Your task to perform on an android device: turn on location history Image 0: 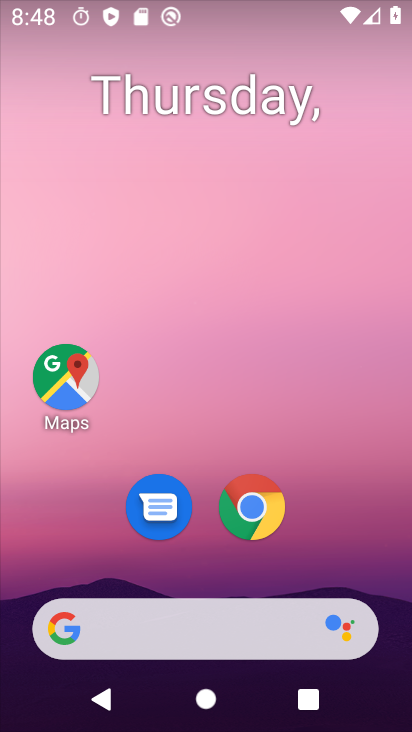
Step 0: drag from (218, 579) to (331, 18)
Your task to perform on an android device: turn on location history Image 1: 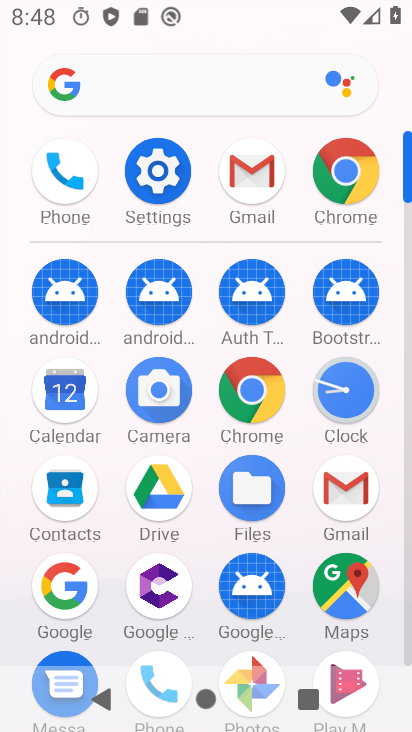
Step 1: click (180, 188)
Your task to perform on an android device: turn on location history Image 2: 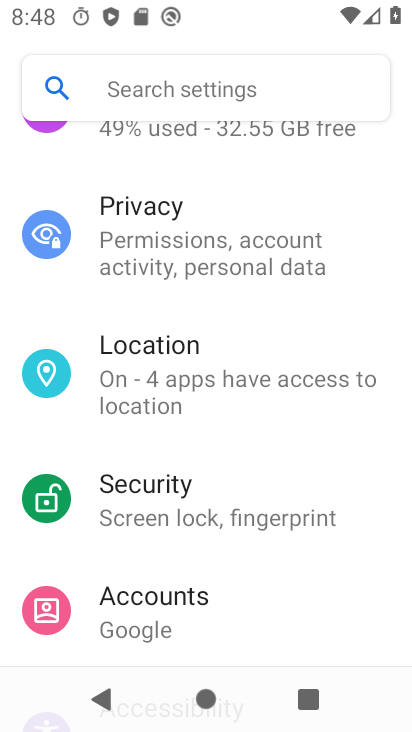
Step 2: click (183, 386)
Your task to perform on an android device: turn on location history Image 3: 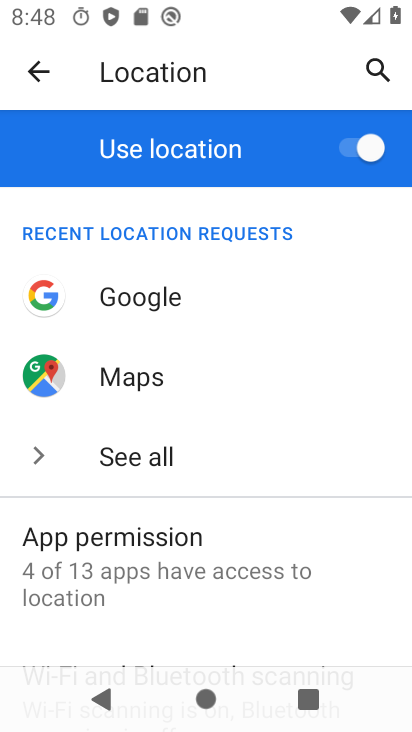
Step 3: drag from (160, 490) to (217, 98)
Your task to perform on an android device: turn on location history Image 4: 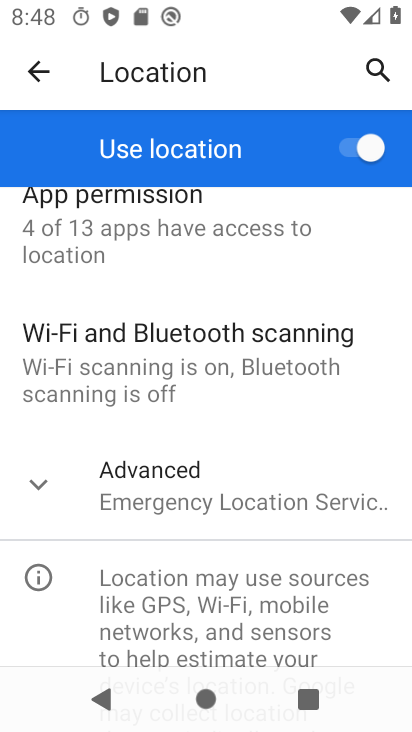
Step 4: click (169, 475)
Your task to perform on an android device: turn on location history Image 5: 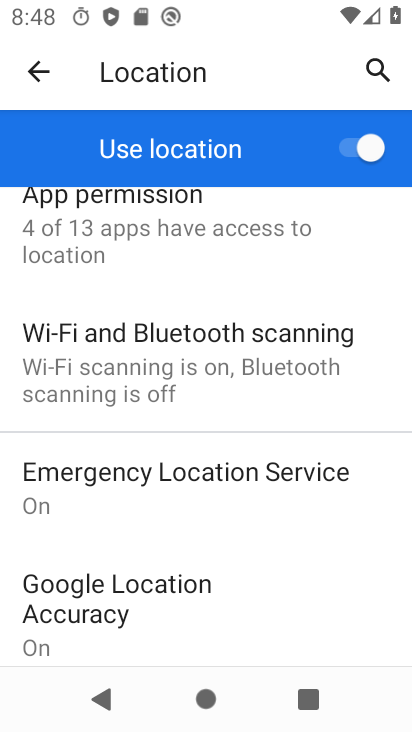
Step 5: drag from (177, 563) to (237, 126)
Your task to perform on an android device: turn on location history Image 6: 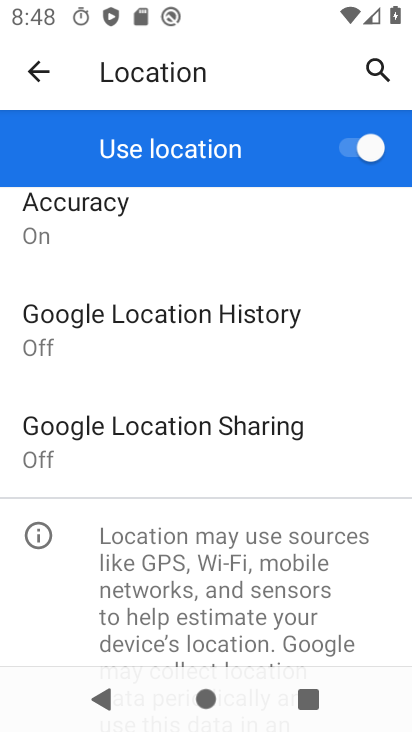
Step 6: click (158, 323)
Your task to perform on an android device: turn on location history Image 7: 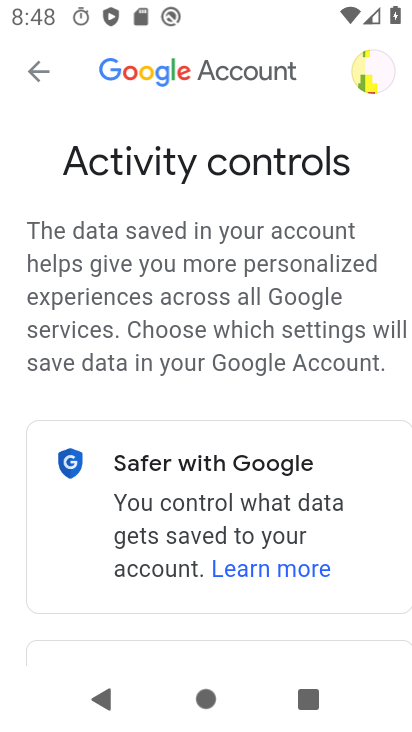
Step 7: drag from (228, 517) to (305, 67)
Your task to perform on an android device: turn on location history Image 8: 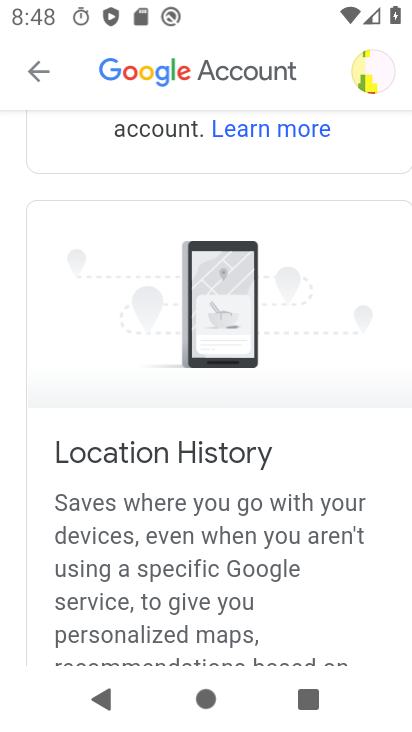
Step 8: drag from (248, 485) to (306, 10)
Your task to perform on an android device: turn on location history Image 9: 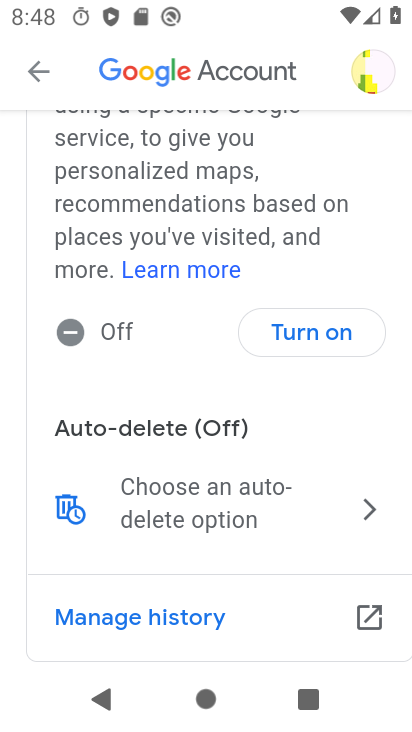
Step 9: click (309, 332)
Your task to perform on an android device: turn on location history Image 10: 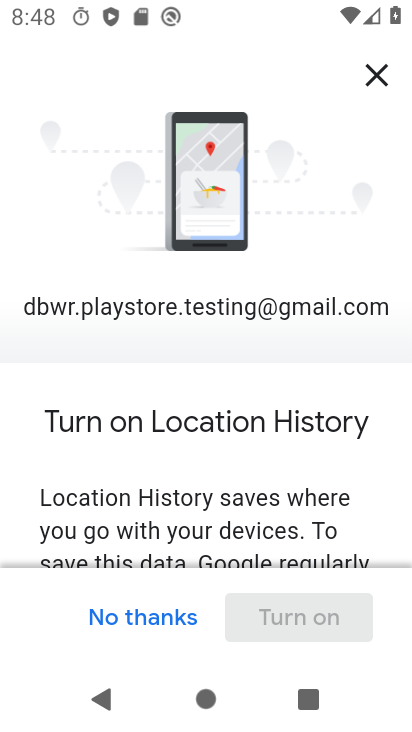
Step 10: drag from (247, 520) to (283, 0)
Your task to perform on an android device: turn on location history Image 11: 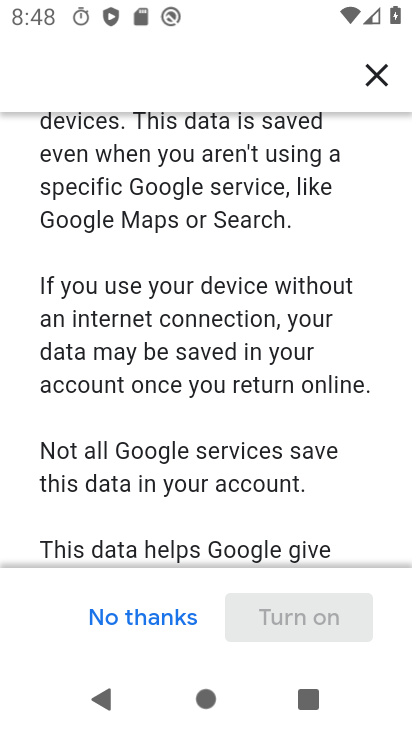
Step 11: drag from (204, 386) to (279, 13)
Your task to perform on an android device: turn on location history Image 12: 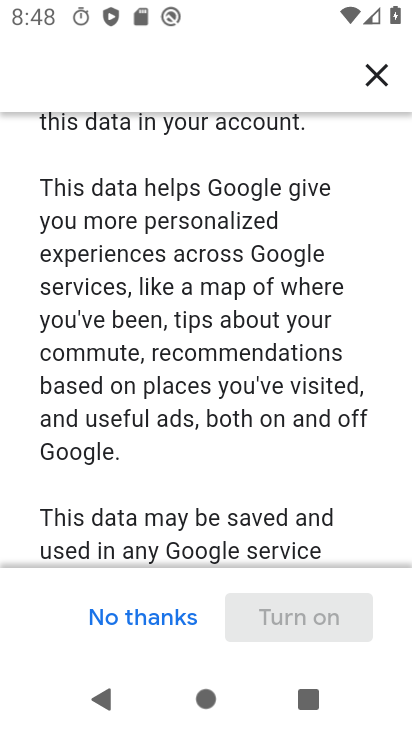
Step 12: drag from (192, 465) to (291, 9)
Your task to perform on an android device: turn on location history Image 13: 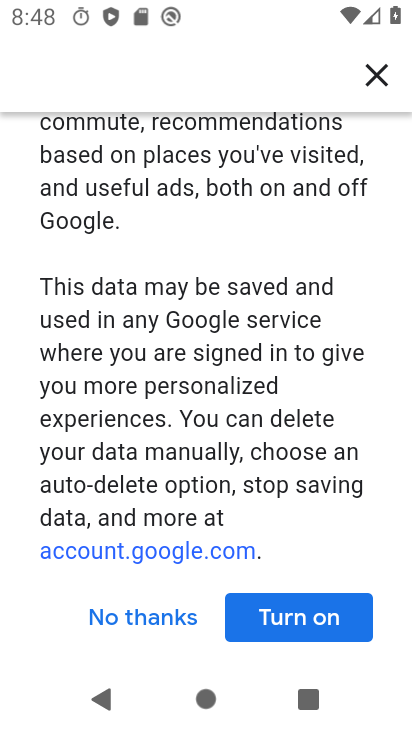
Step 13: click (278, 611)
Your task to perform on an android device: turn on location history Image 14: 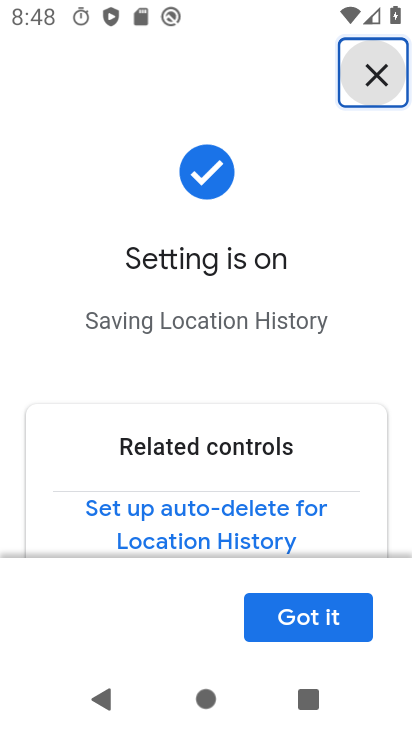
Step 14: click (282, 617)
Your task to perform on an android device: turn on location history Image 15: 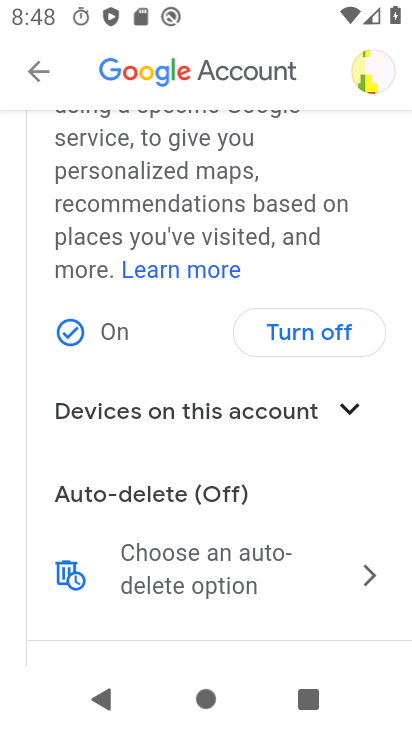
Step 15: task complete